Your task to perform on an android device: search for starred emails in the gmail app Image 0: 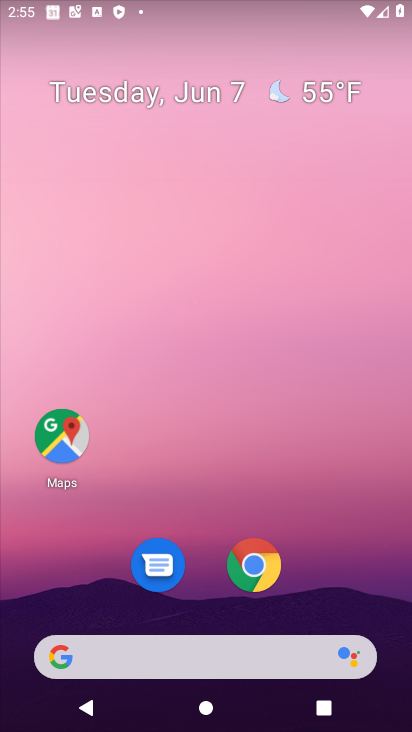
Step 0: drag from (262, 613) to (251, 32)
Your task to perform on an android device: search for starred emails in the gmail app Image 1: 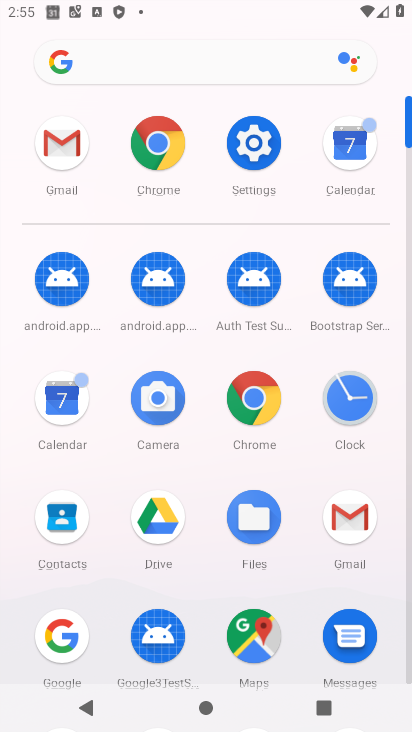
Step 1: click (360, 514)
Your task to perform on an android device: search for starred emails in the gmail app Image 2: 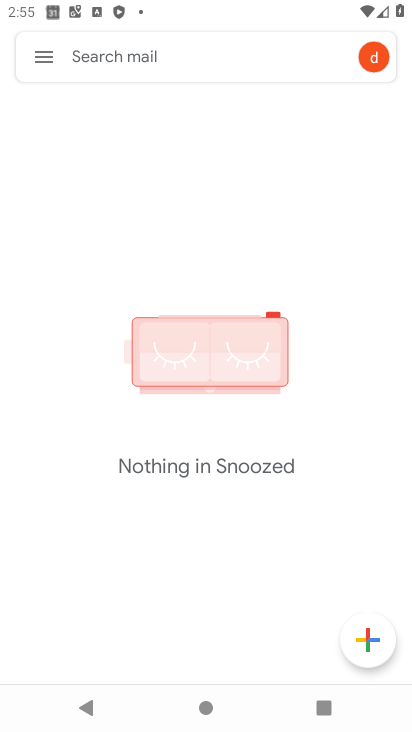
Step 2: click (47, 53)
Your task to perform on an android device: search for starred emails in the gmail app Image 3: 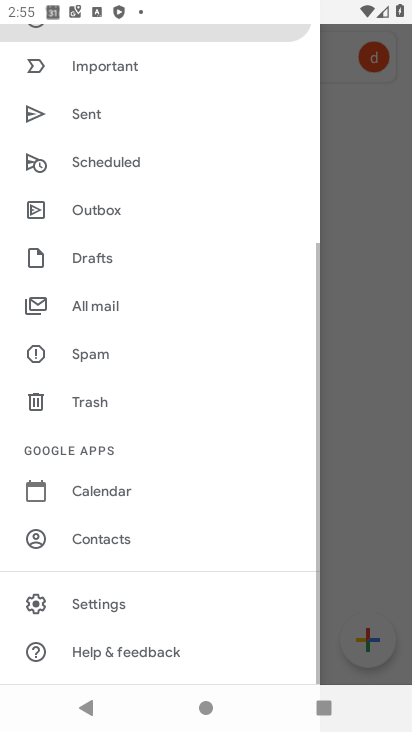
Step 3: drag from (137, 193) to (152, 626)
Your task to perform on an android device: search for starred emails in the gmail app Image 4: 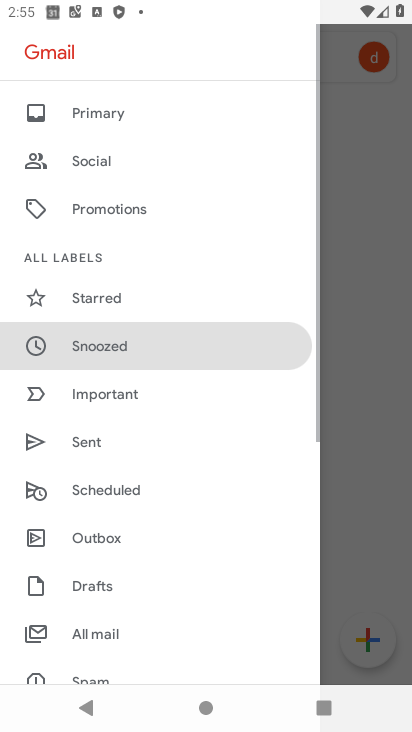
Step 4: click (126, 309)
Your task to perform on an android device: search for starred emails in the gmail app Image 5: 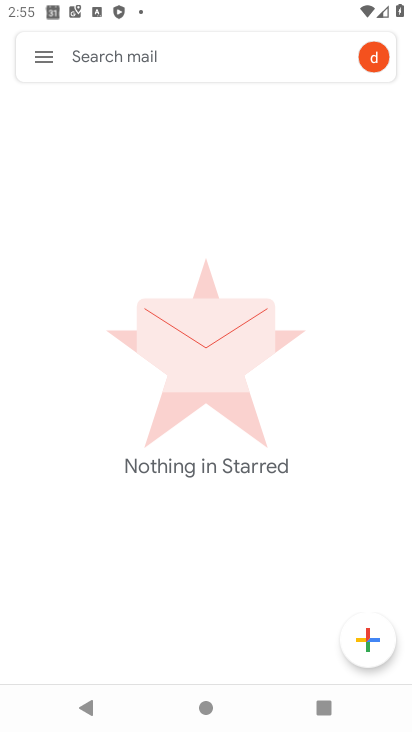
Step 5: task complete